Your task to perform on an android device: turn off location Image 0: 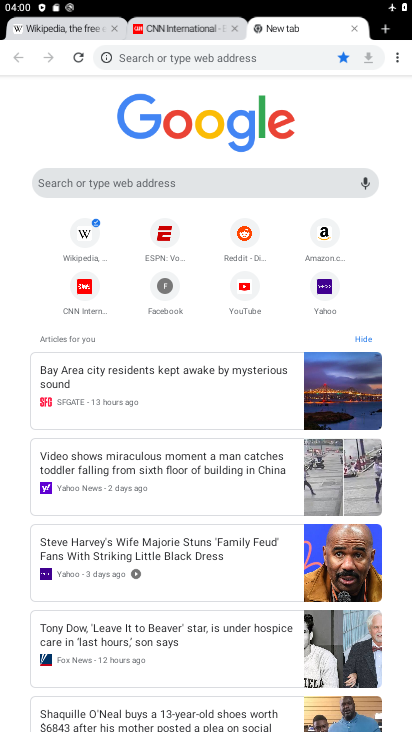
Step 0: press home button
Your task to perform on an android device: turn off location Image 1: 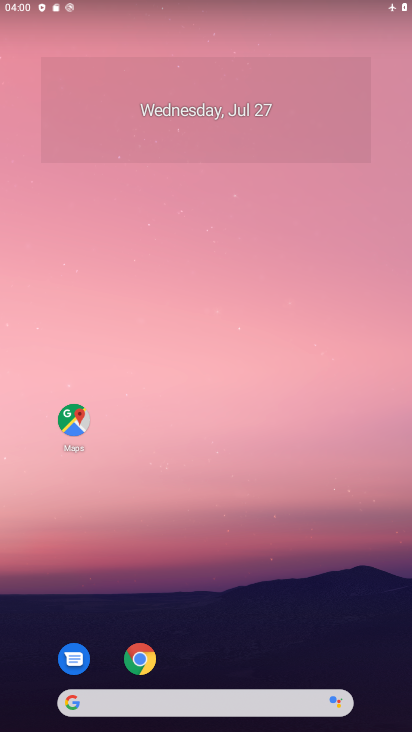
Step 1: drag from (249, 666) to (233, 42)
Your task to perform on an android device: turn off location Image 2: 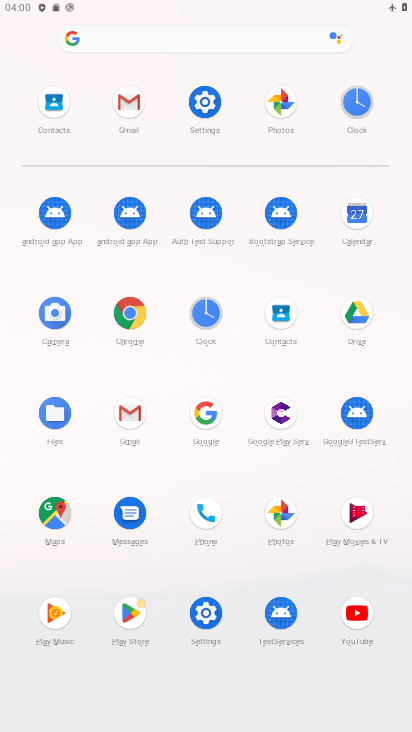
Step 2: click (192, 91)
Your task to perform on an android device: turn off location Image 3: 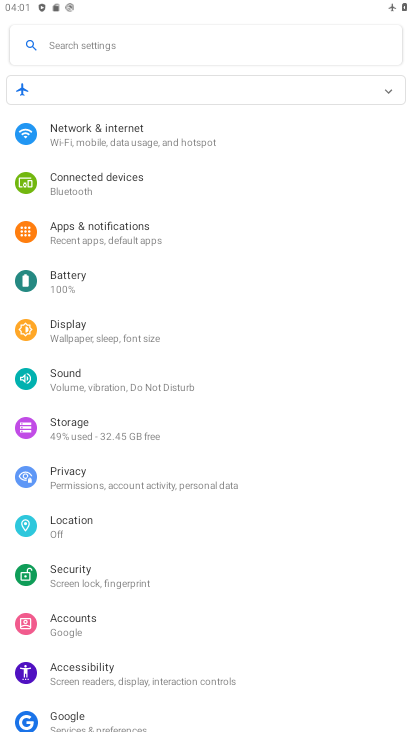
Step 3: click (55, 535)
Your task to perform on an android device: turn off location Image 4: 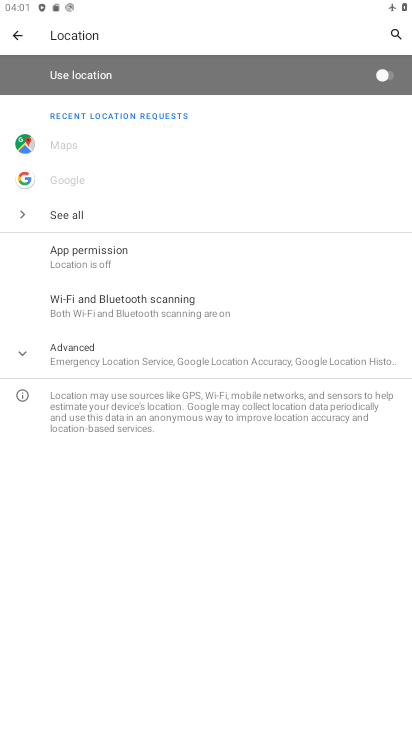
Step 4: task complete